Your task to perform on an android device: Add "razer thresher" to the cart on amazon.com Image 0: 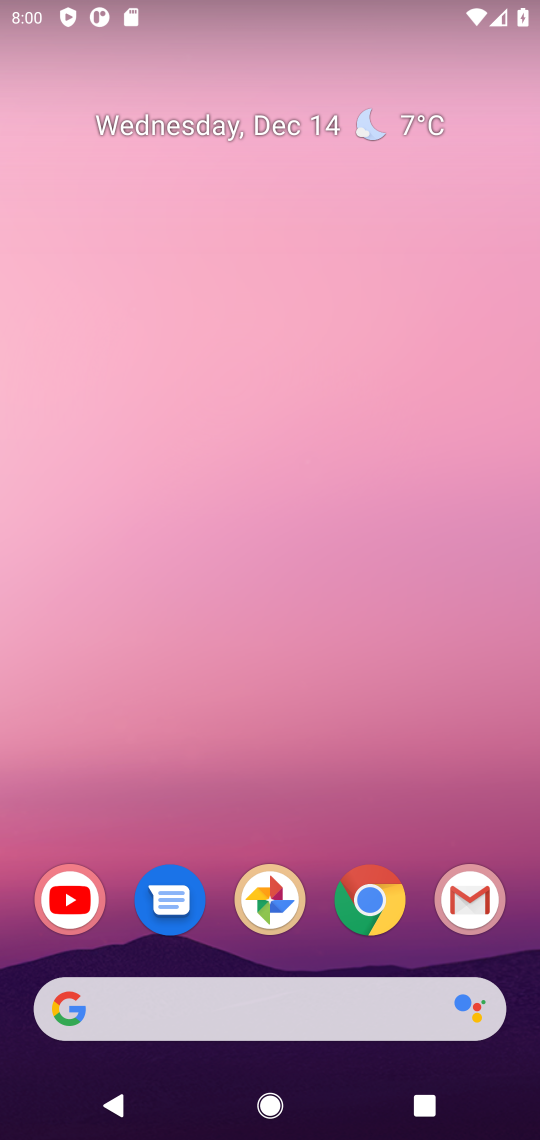
Step 0: press home button
Your task to perform on an android device: Add "razer thresher" to the cart on amazon.com Image 1: 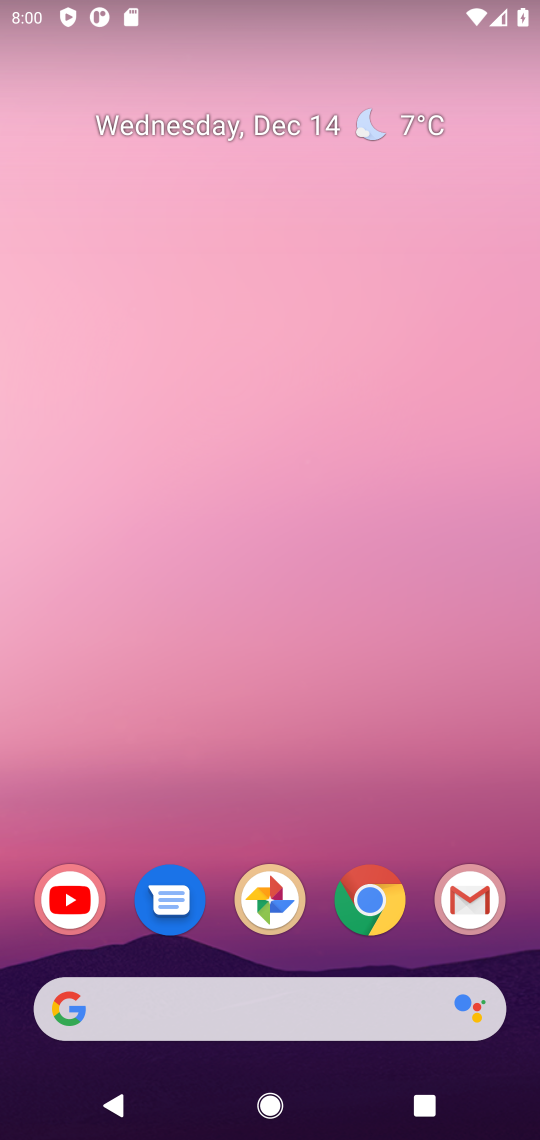
Step 1: drag from (261, 927) to (36, 238)
Your task to perform on an android device: Add "razer thresher" to the cart on amazon.com Image 2: 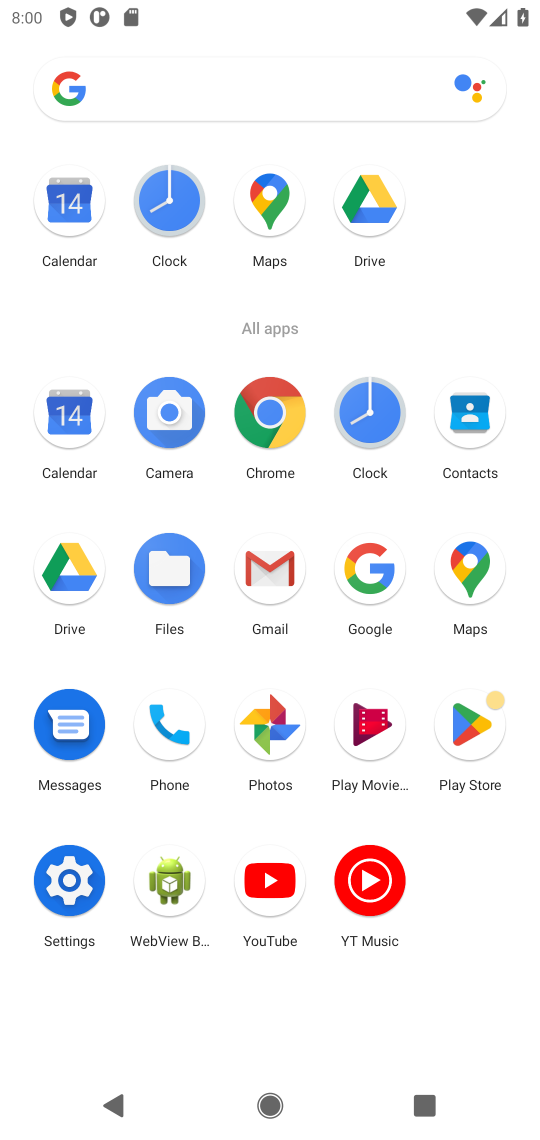
Step 2: click (378, 573)
Your task to perform on an android device: Add "razer thresher" to the cart on amazon.com Image 3: 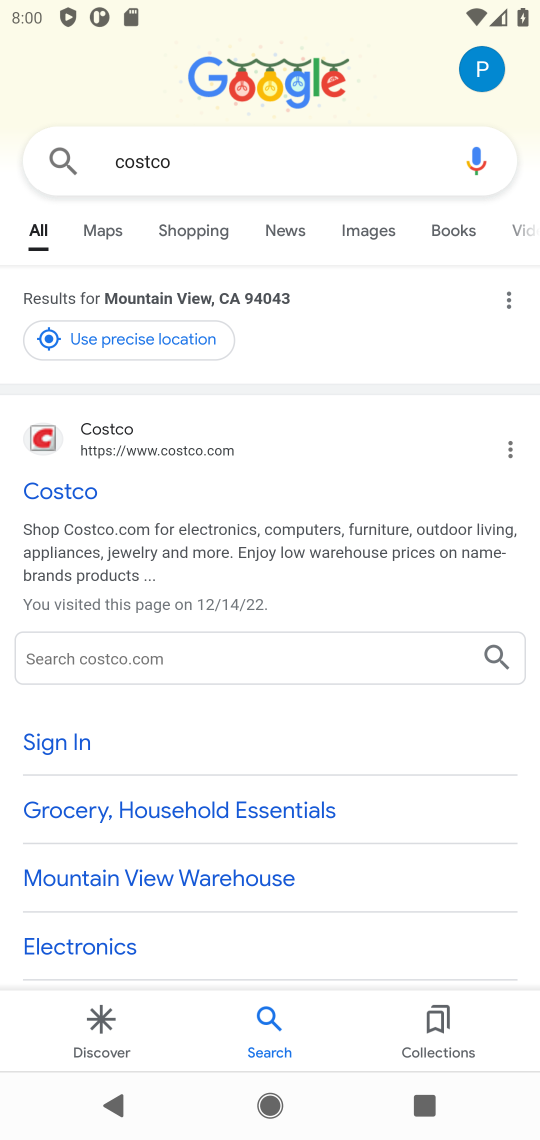
Step 3: click (76, 499)
Your task to perform on an android device: Add "razer thresher" to the cart on amazon.com Image 4: 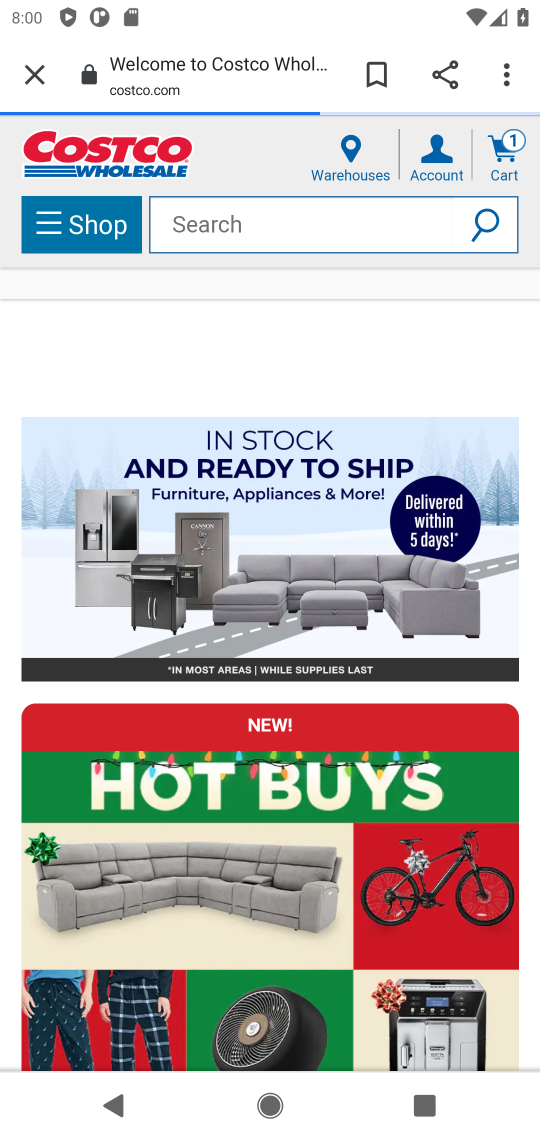
Step 4: click (265, 81)
Your task to perform on an android device: Add "razer thresher" to the cart on amazon.com Image 5: 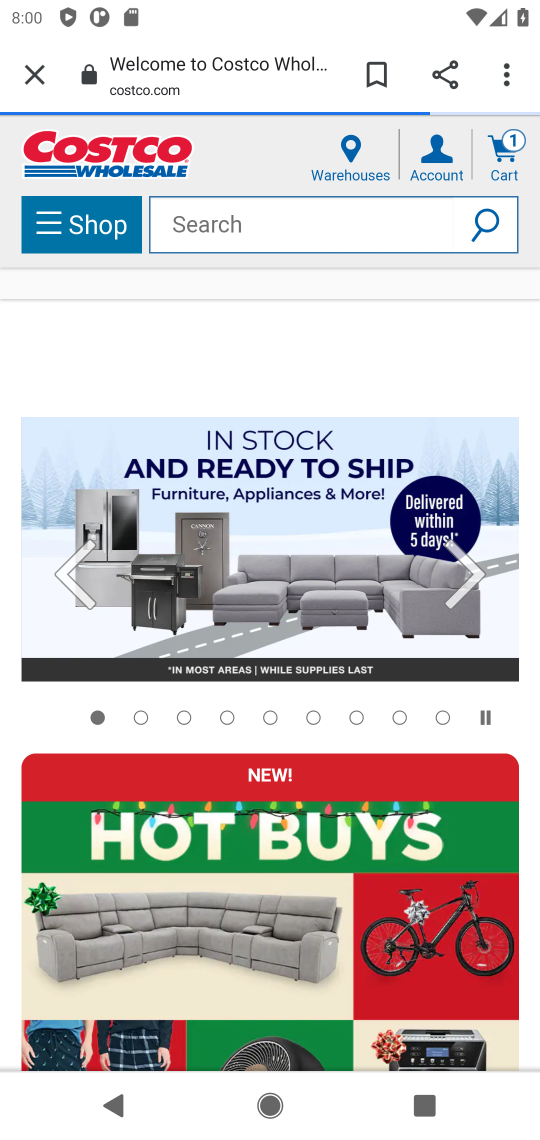
Step 5: click (30, 68)
Your task to perform on an android device: Add "razer thresher" to the cart on amazon.com Image 6: 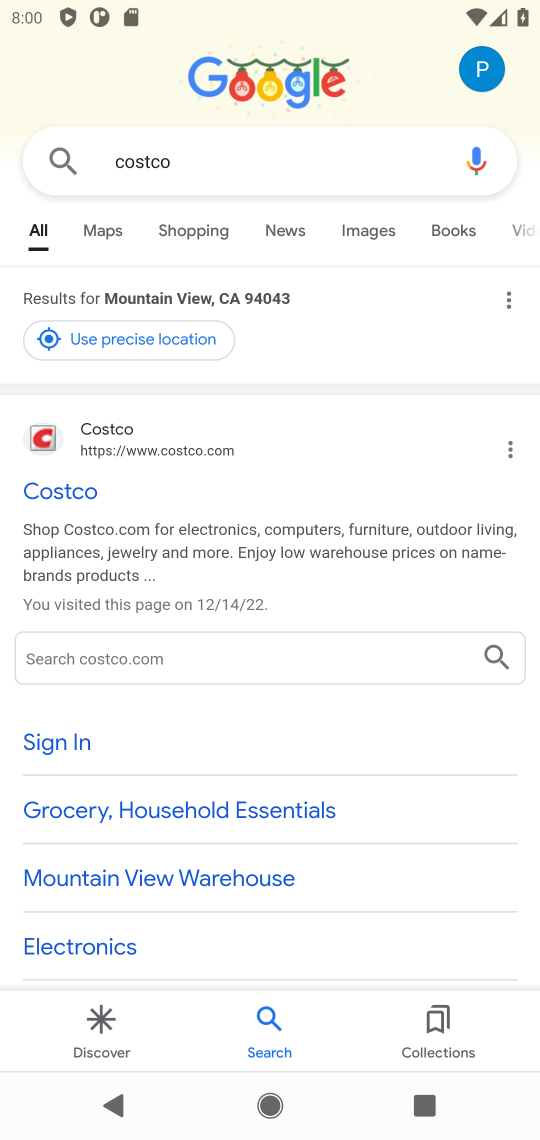
Step 6: click (339, 161)
Your task to perform on an android device: Add "razer thresher" to the cart on amazon.com Image 7: 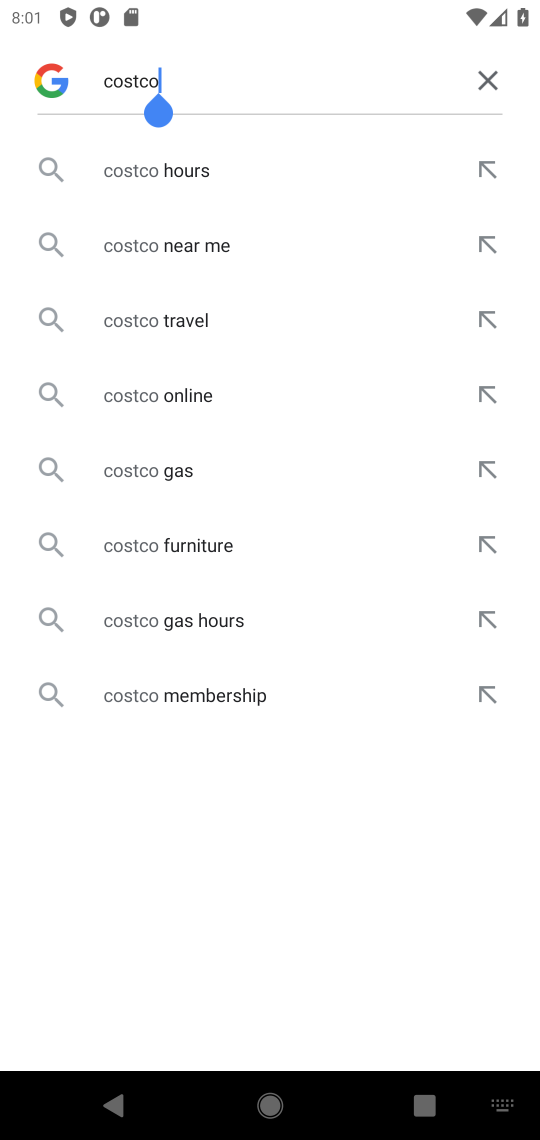
Step 7: click (487, 88)
Your task to perform on an android device: Add "razer thresher" to the cart on amazon.com Image 8: 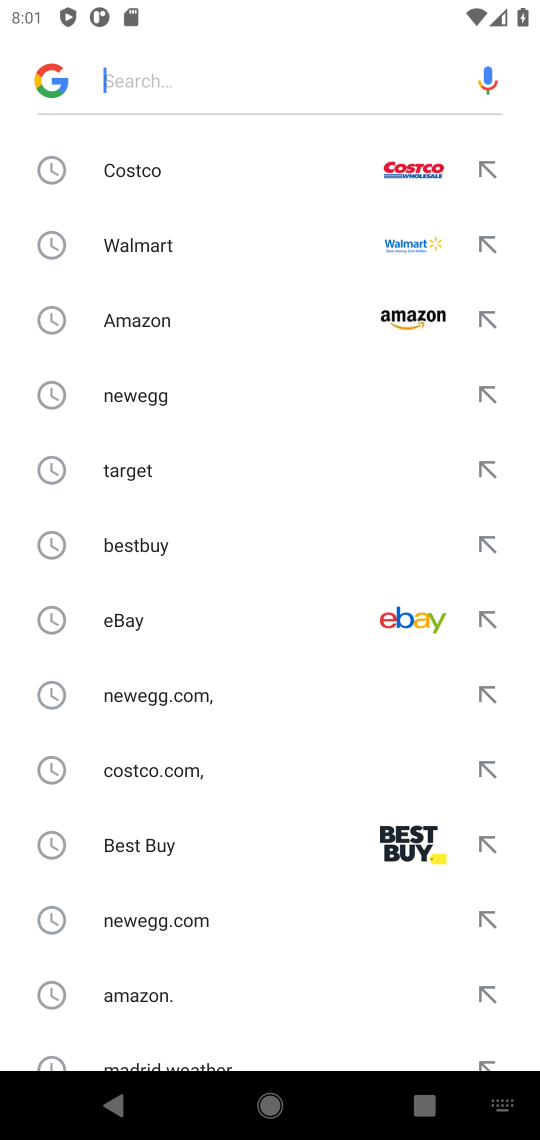
Step 8: click (337, 325)
Your task to perform on an android device: Add "razer thresher" to the cart on amazon.com Image 9: 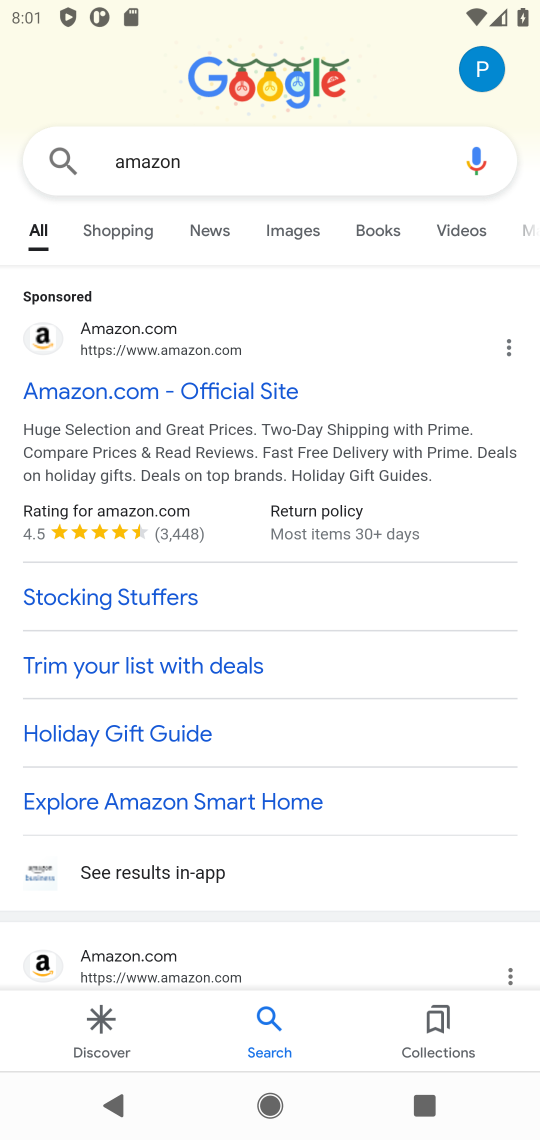
Step 9: click (57, 395)
Your task to perform on an android device: Add "razer thresher" to the cart on amazon.com Image 10: 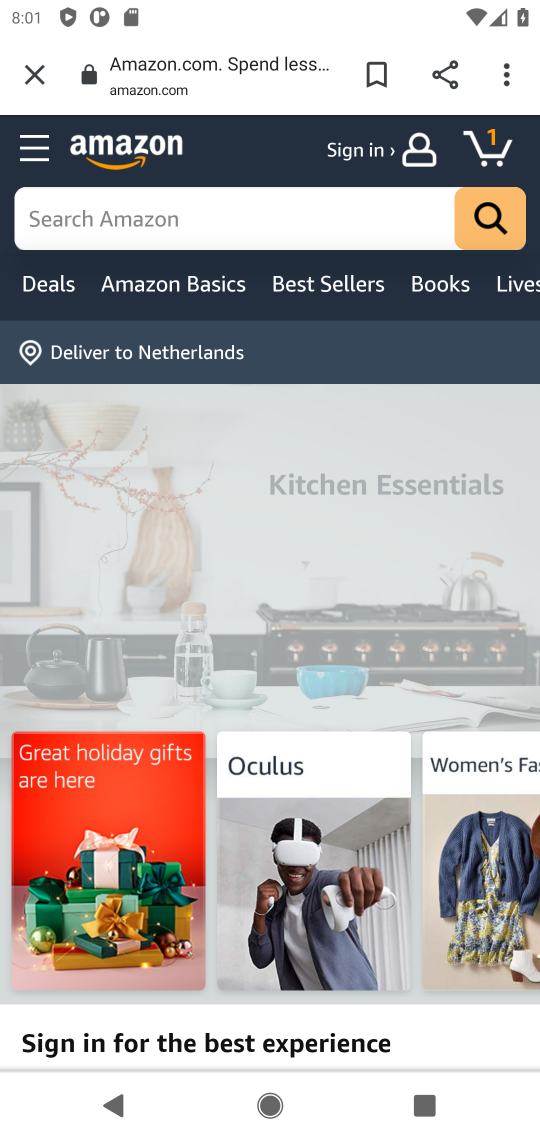
Step 10: click (251, 206)
Your task to perform on an android device: Add "razer thresher" to the cart on amazon.com Image 11: 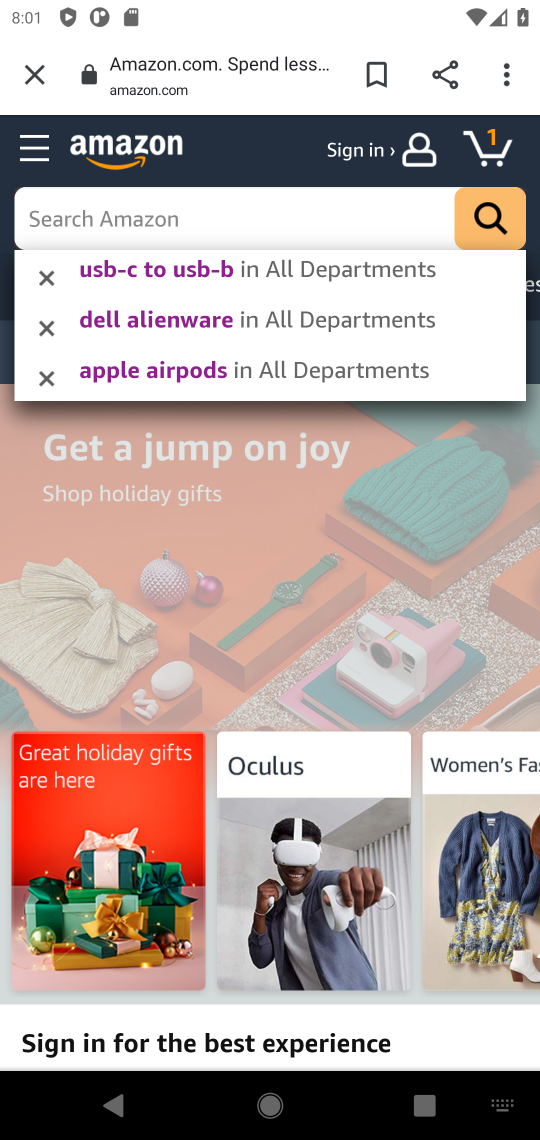
Step 11: type "razer thresher"
Your task to perform on an android device: Add "razer thresher" to the cart on amazon.com Image 12: 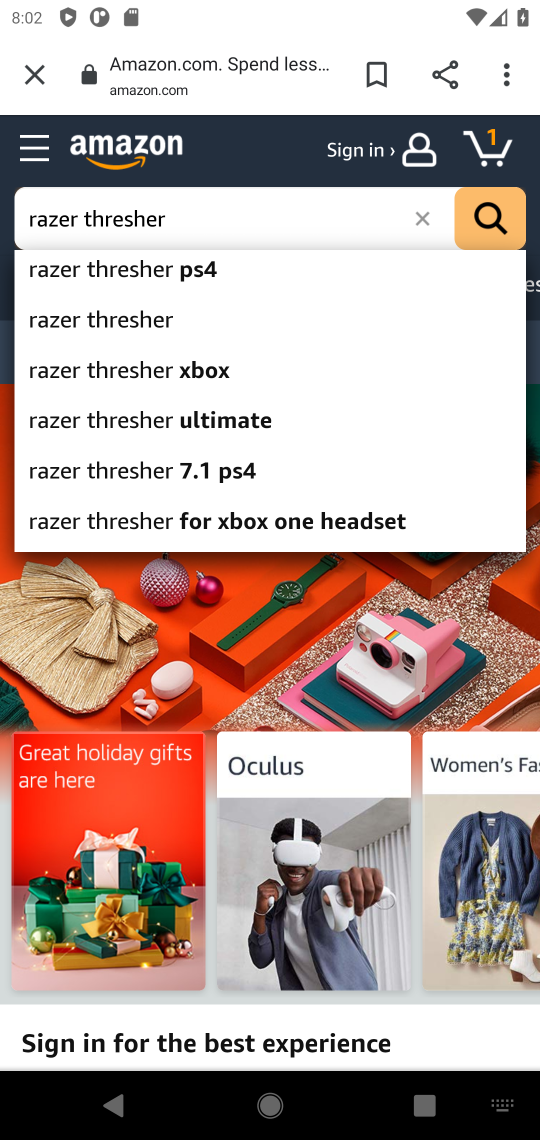
Step 12: click (492, 215)
Your task to perform on an android device: Add "razer thresher" to the cart on amazon.com Image 13: 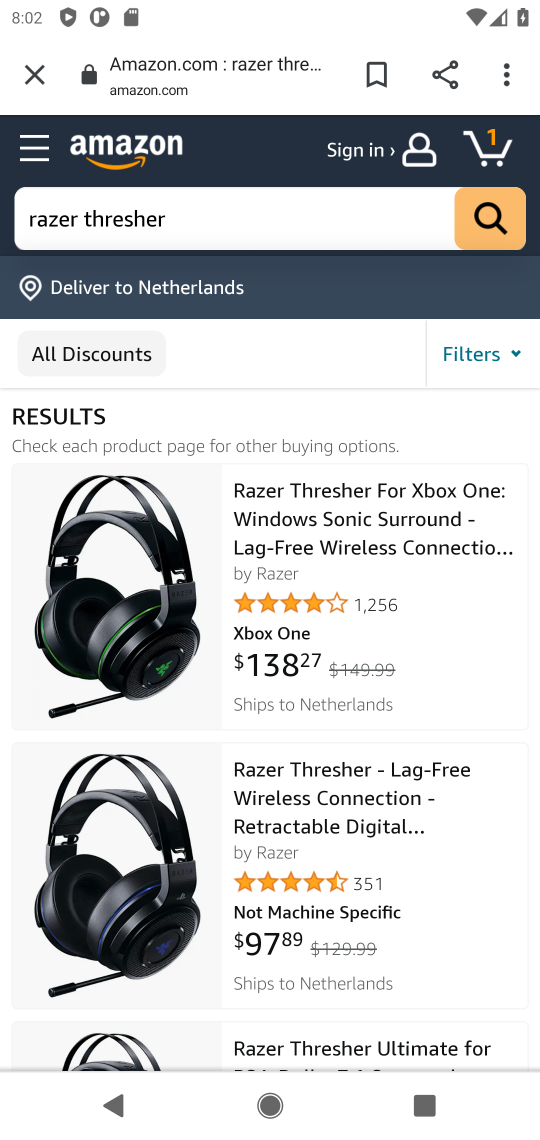
Step 13: click (364, 520)
Your task to perform on an android device: Add "razer thresher" to the cart on amazon.com Image 14: 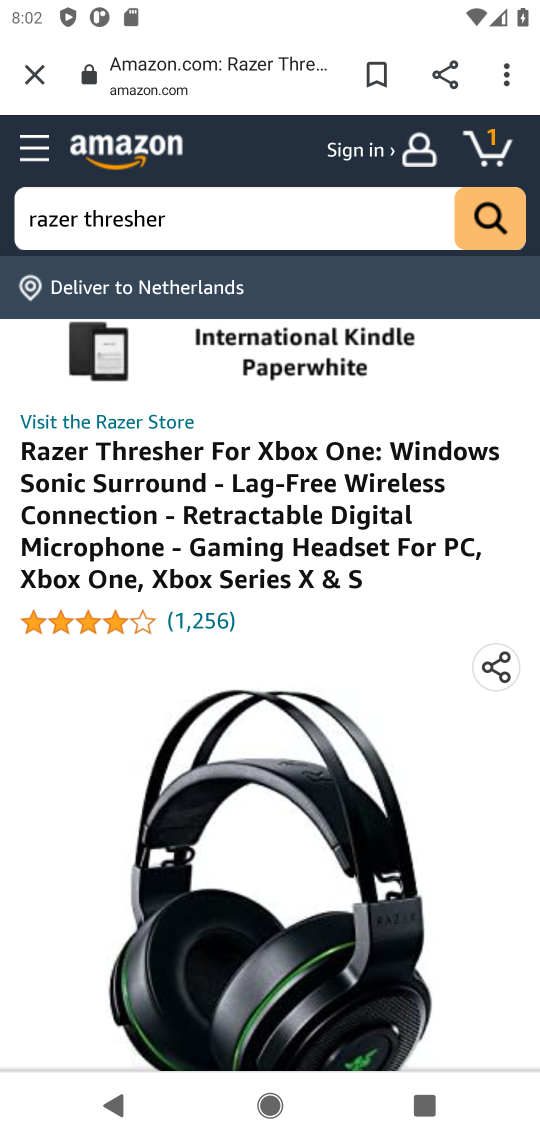
Step 14: drag from (363, 847) to (135, 440)
Your task to perform on an android device: Add "razer thresher" to the cart on amazon.com Image 15: 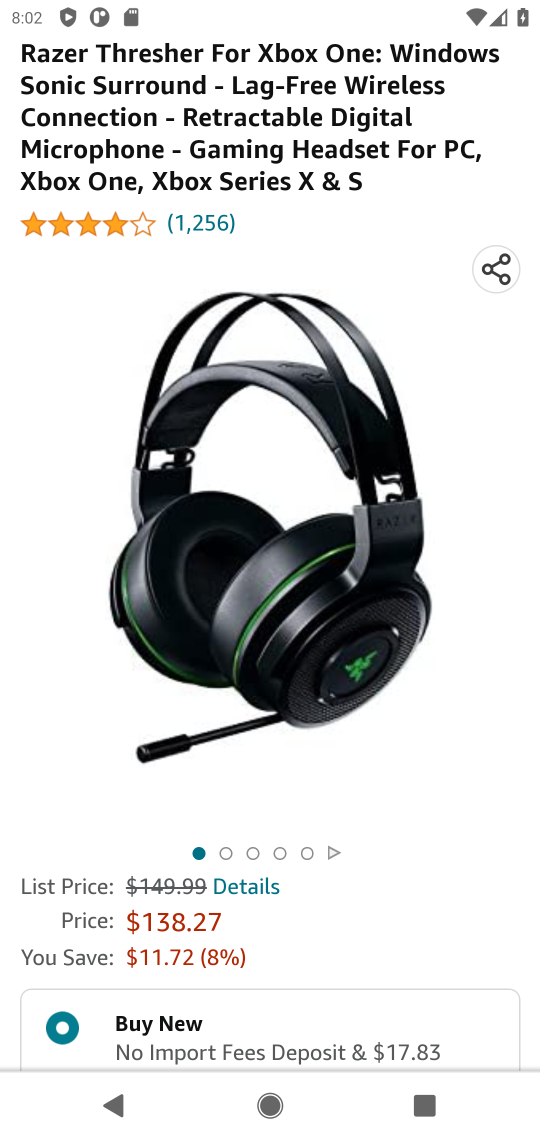
Step 15: drag from (296, 920) to (250, 204)
Your task to perform on an android device: Add "razer thresher" to the cart on amazon.com Image 16: 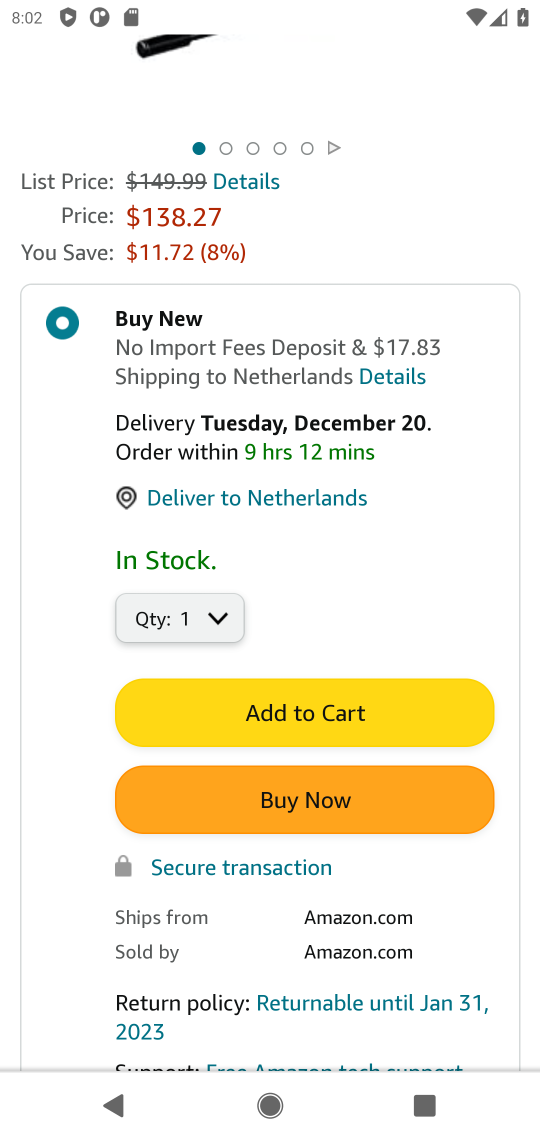
Step 16: click (270, 707)
Your task to perform on an android device: Add "razer thresher" to the cart on amazon.com Image 17: 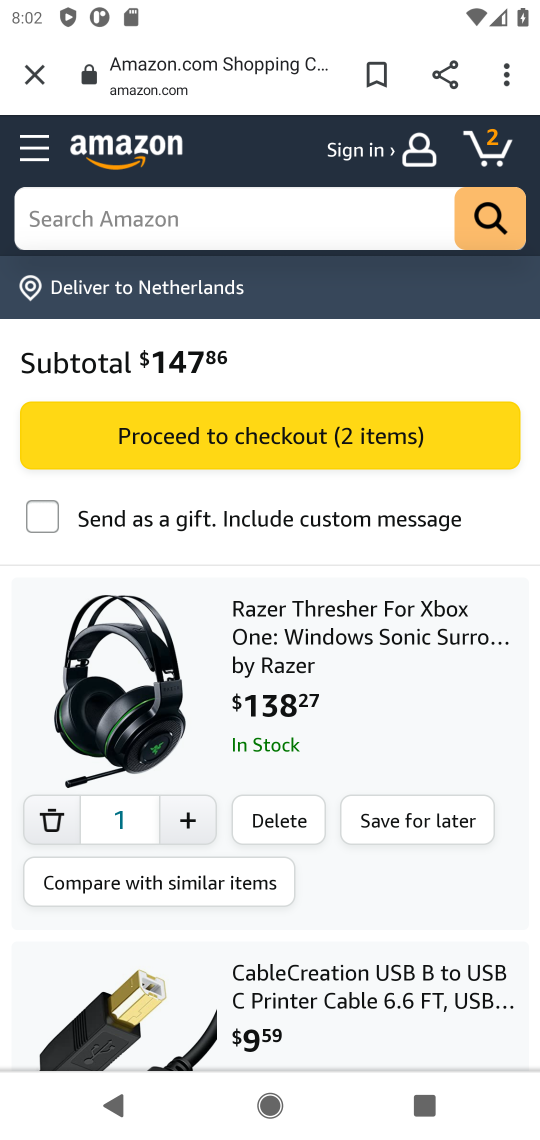
Step 17: task complete